Your task to perform on an android device: check storage Image 0: 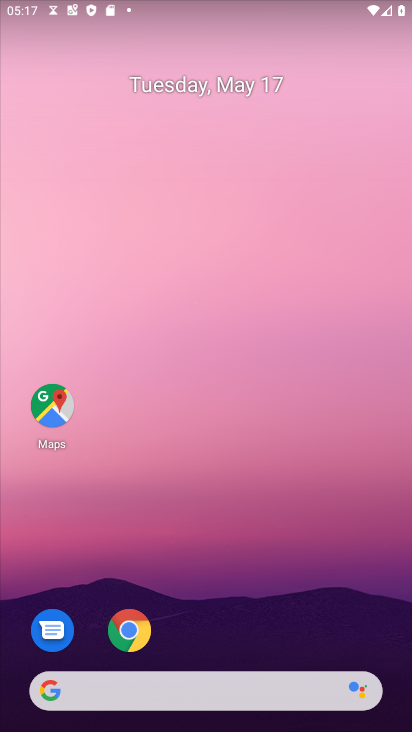
Step 0: press home button
Your task to perform on an android device: check storage Image 1: 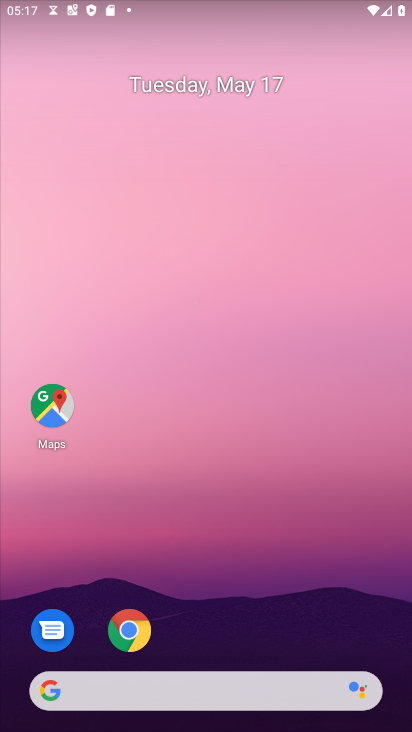
Step 1: drag from (286, 614) to (244, 135)
Your task to perform on an android device: check storage Image 2: 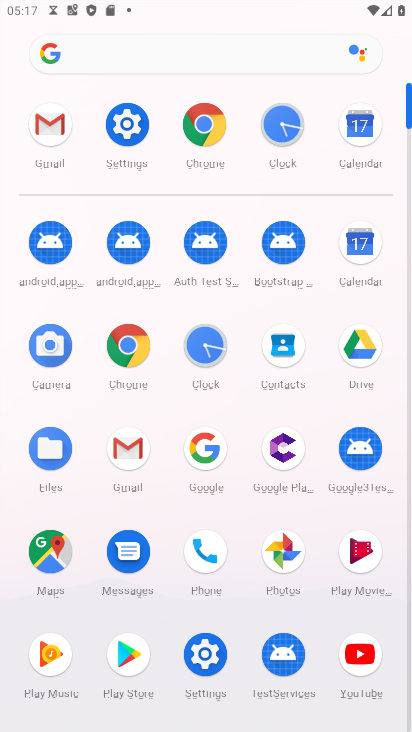
Step 2: click (204, 123)
Your task to perform on an android device: check storage Image 3: 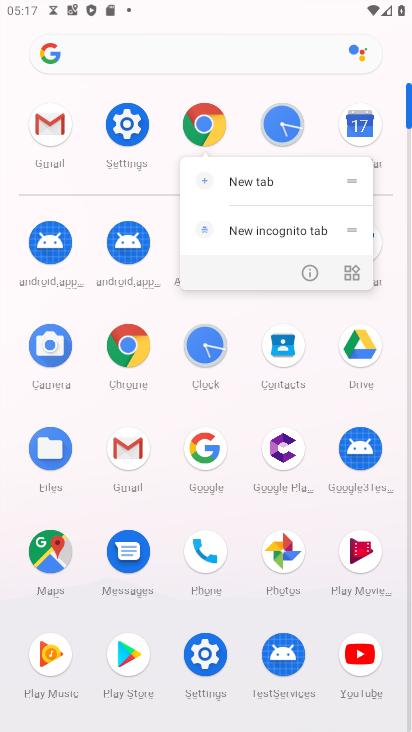
Step 3: click (135, 129)
Your task to perform on an android device: check storage Image 4: 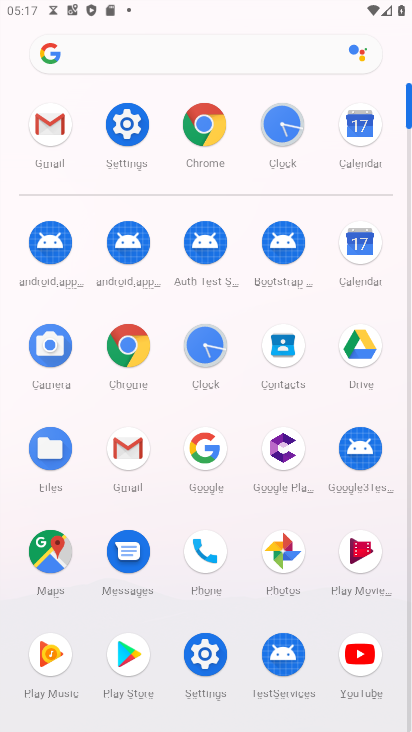
Step 4: click (127, 121)
Your task to perform on an android device: check storage Image 5: 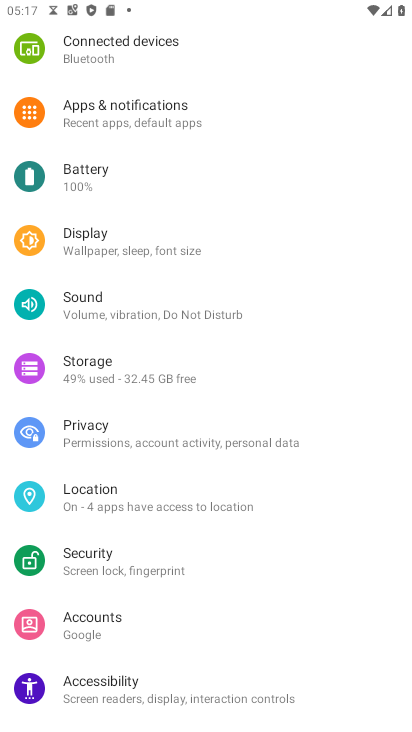
Step 5: click (103, 369)
Your task to perform on an android device: check storage Image 6: 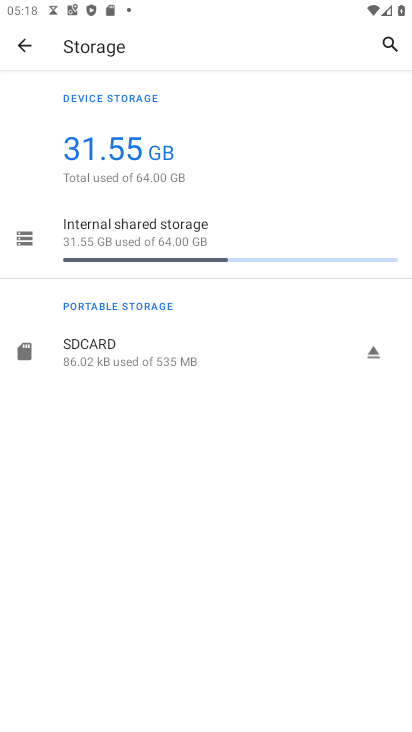
Step 6: task complete